Your task to perform on an android device: turn off airplane mode Image 0: 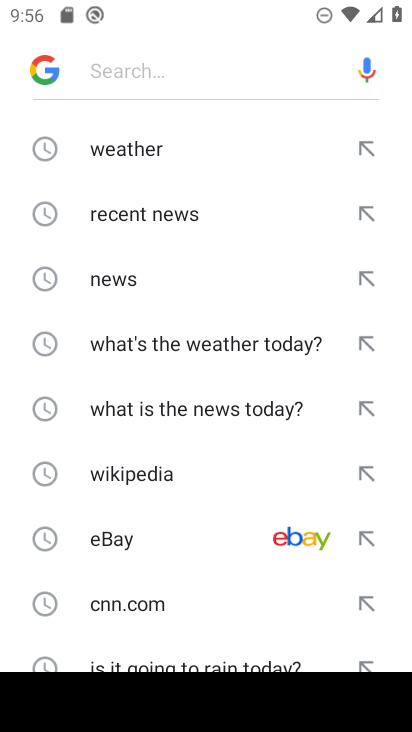
Step 0: press home button
Your task to perform on an android device: turn off airplane mode Image 1: 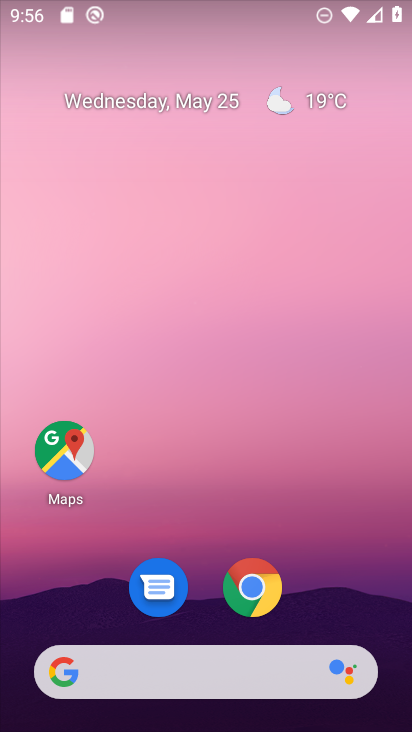
Step 1: drag from (387, 606) to (326, 49)
Your task to perform on an android device: turn off airplane mode Image 2: 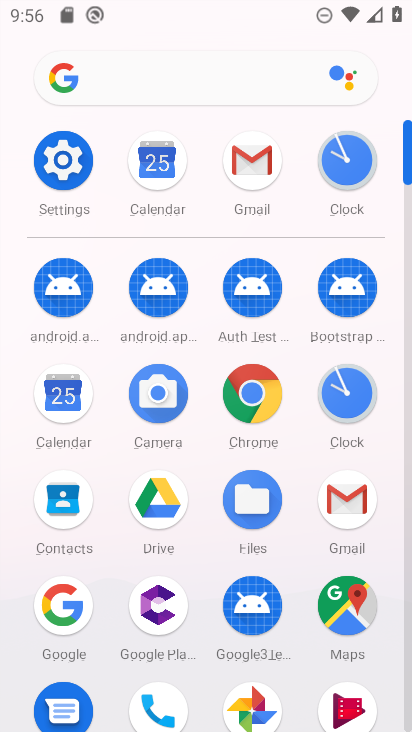
Step 2: click (406, 692)
Your task to perform on an android device: turn off airplane mode Image 3: 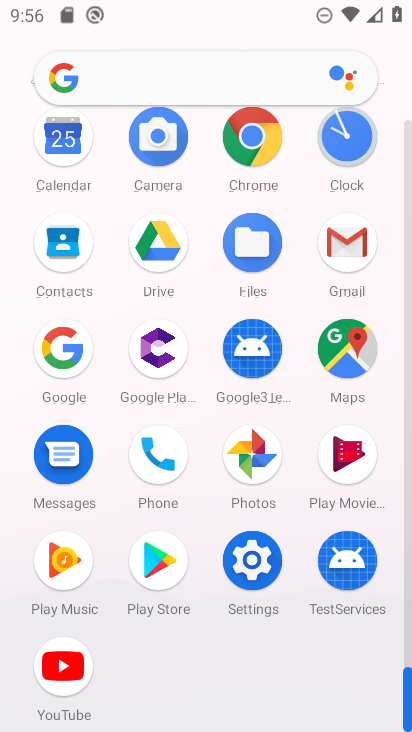
Step 3: click (250, 557)
Your task to perform on an android device: turn off airplane mode Image 4: 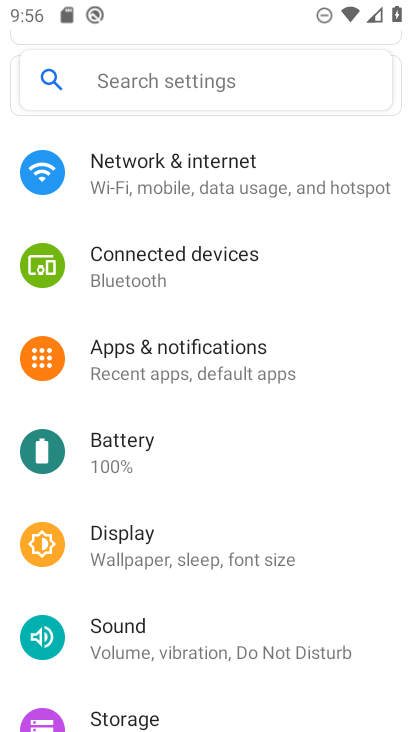
Step 4: click (178, 172)
Your task to perform on an android device: turn off airplane mode Image 5: 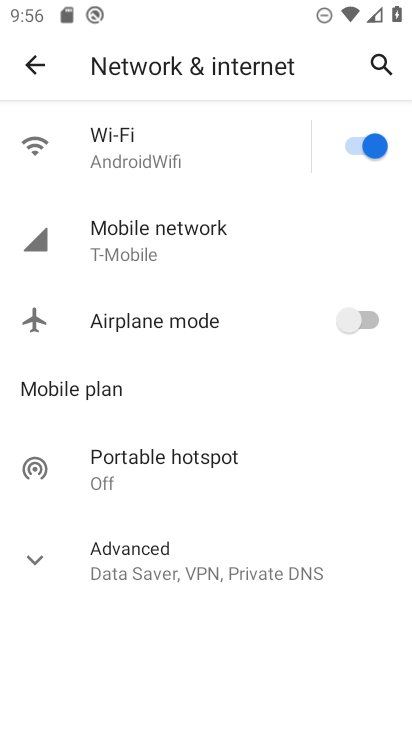
Step 5: task complete